Your task to perform on an android device: Open Google Chrome Image 0: 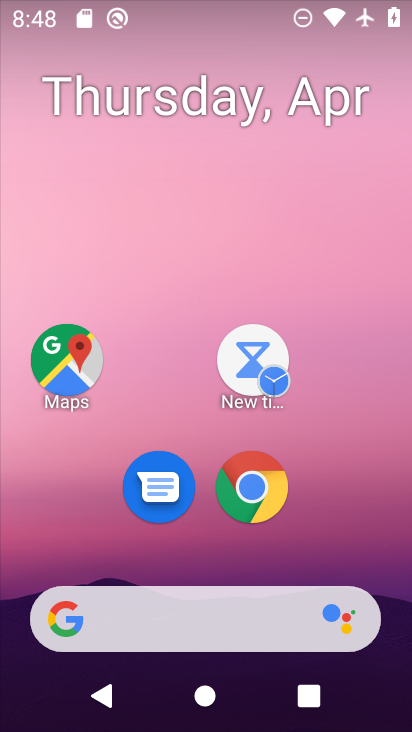
Step 0: click (260, 483)
Your task to perform on an android device: Open Google Chrome Image 1: 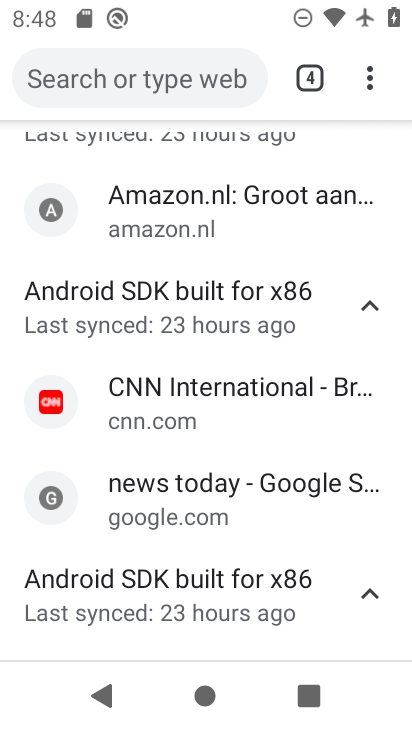
Step 1: task complete